Your task to perform on an android device: turn off priority inbox in the gmail app Image 0: 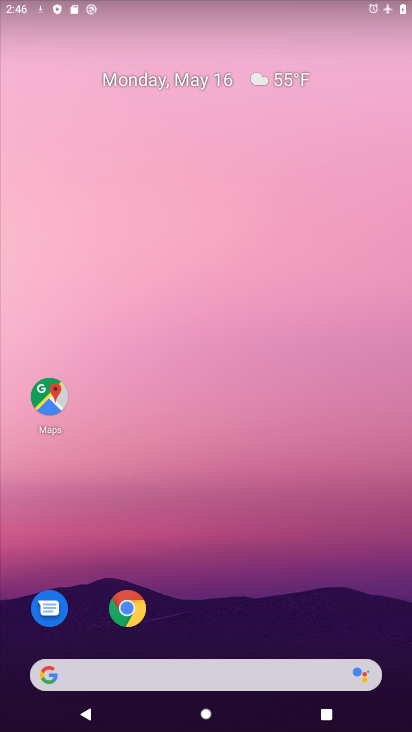
Step 0: drag from (234, 529) to (238, 190)
Your task to perform on an android device: turn off priority inbox in the gmail app Image 1: 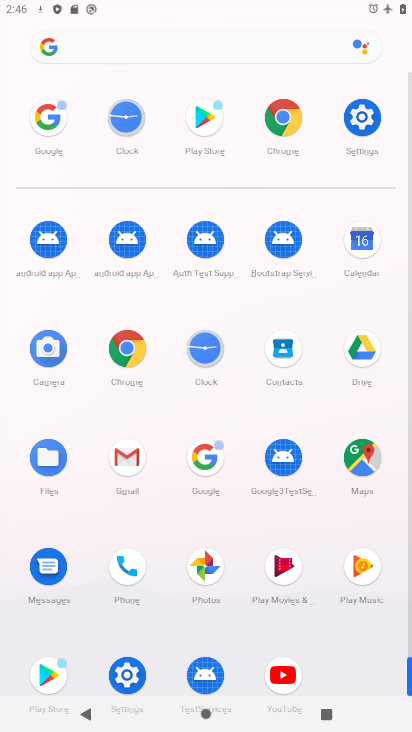
Step 1: click (123, 445)
Your task to perform on an android device: turn off priority inbox in the gmail app Image 2: 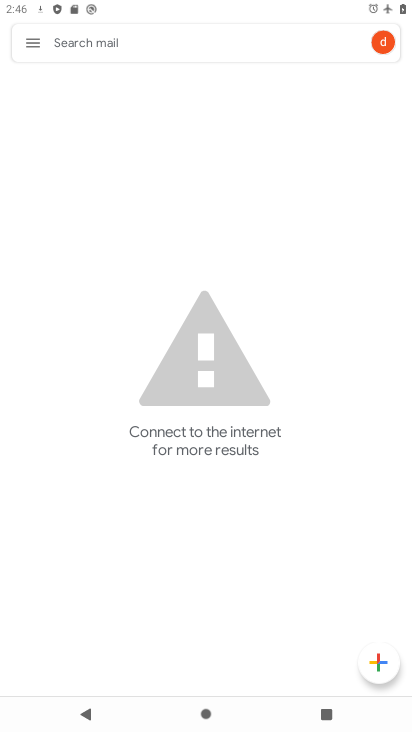
Step 2: click (42, 51)
Your task to perform on an android device: turn off priority inbox in the gmail app Image 3: 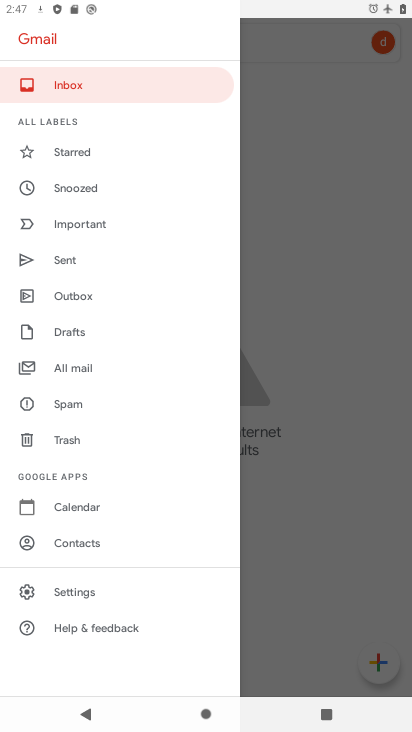
Step 3: click (80, 594)
Your task to perform on an android device: turn off priority inbox in the gmail app Image 4: 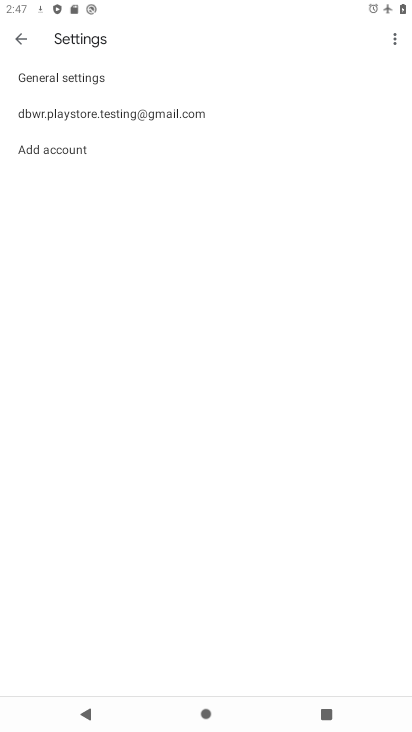
Step 4: click (193, 116)
Your task to perform on an android device: turn off priority inbox in the gmail app Image 5: 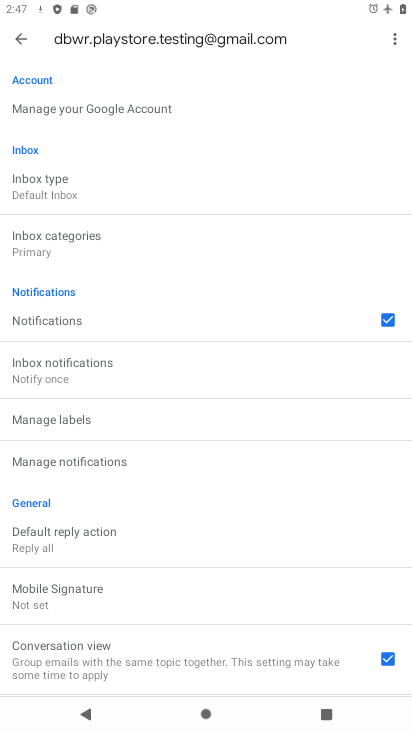
Step 5: click (79, 183)
Your task to perform on an android device: turn off priority inbox in the gmail app Image 6: 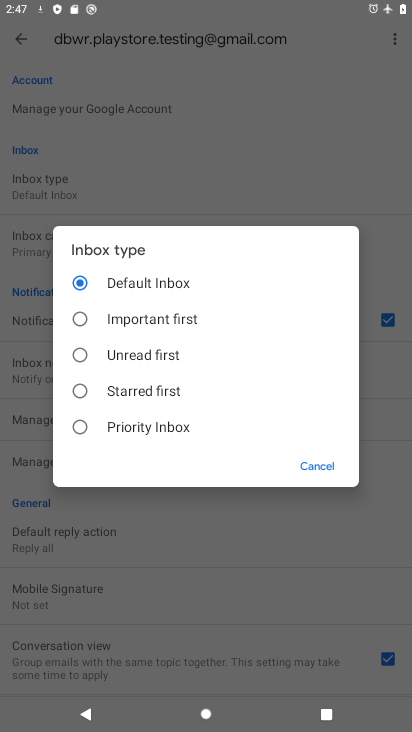
Step 6: task complete